Your task to perform on an android device: Show the shopping cart on newegg.com. Add "asus zenbook" to the cart on newegg.com Image 0: 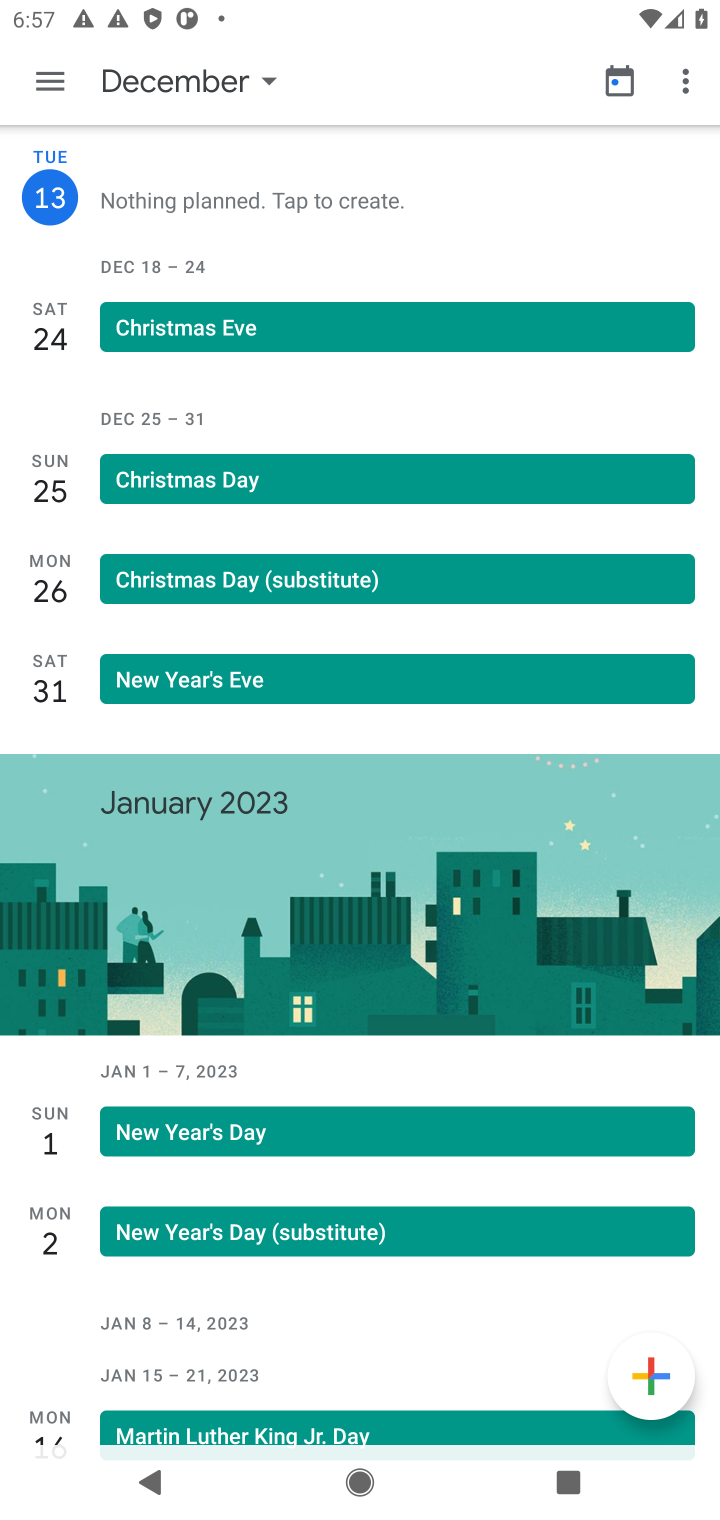
Step 0: press home button
Your task to perform on an android device: Show the shopping cart on newegg.com. Add "asus zenbook" to the cart on newegg.com Image 1: 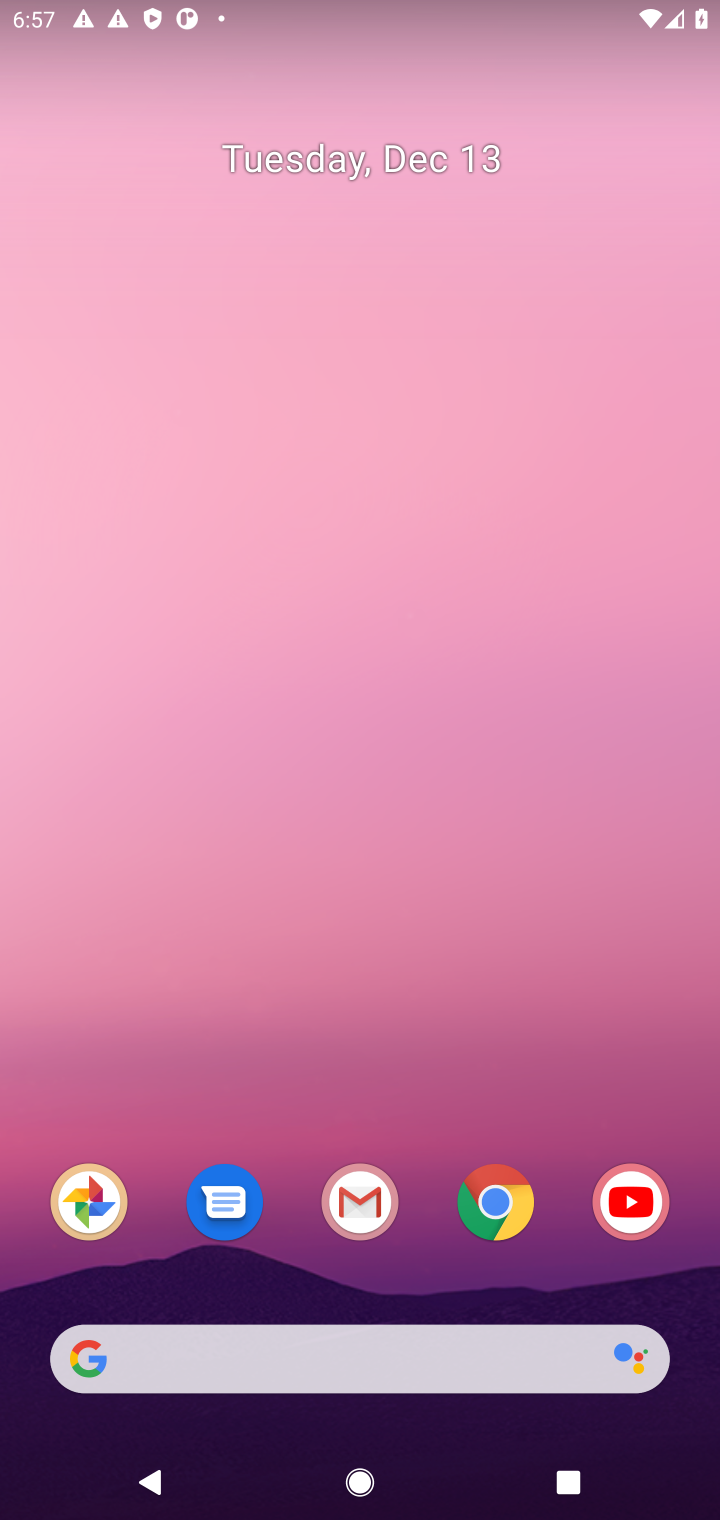
Step 1: click (497, 1220)
Your task to perform on an android device: Show the shopping cart on newegg.com. Add "asus zenbook" to the cart on newegg.com Image 2: 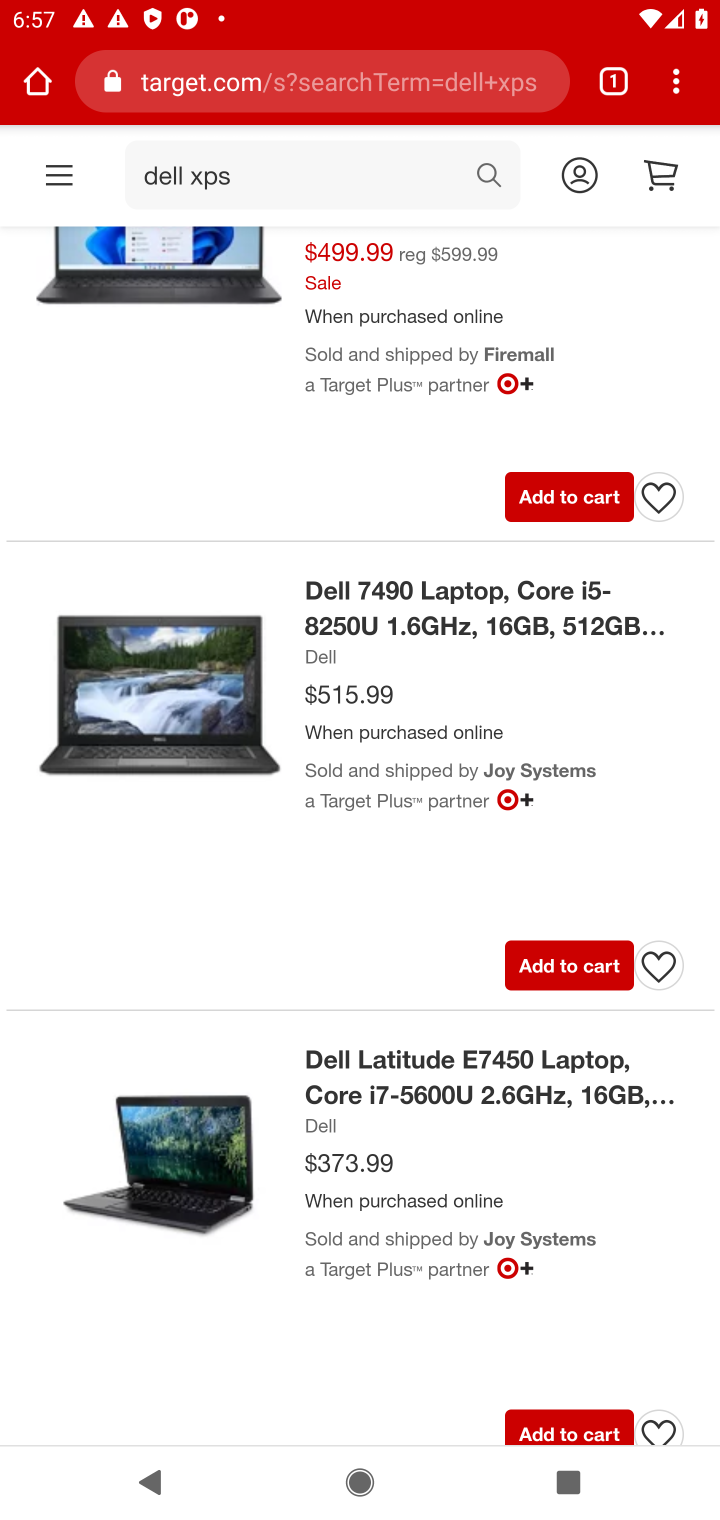
Step 2: click (239, 88)
Your task to perform on an android device: Show the shopping cart on newegg.com. Add "asus zenbook" to the cart on newegg.com Image 3: 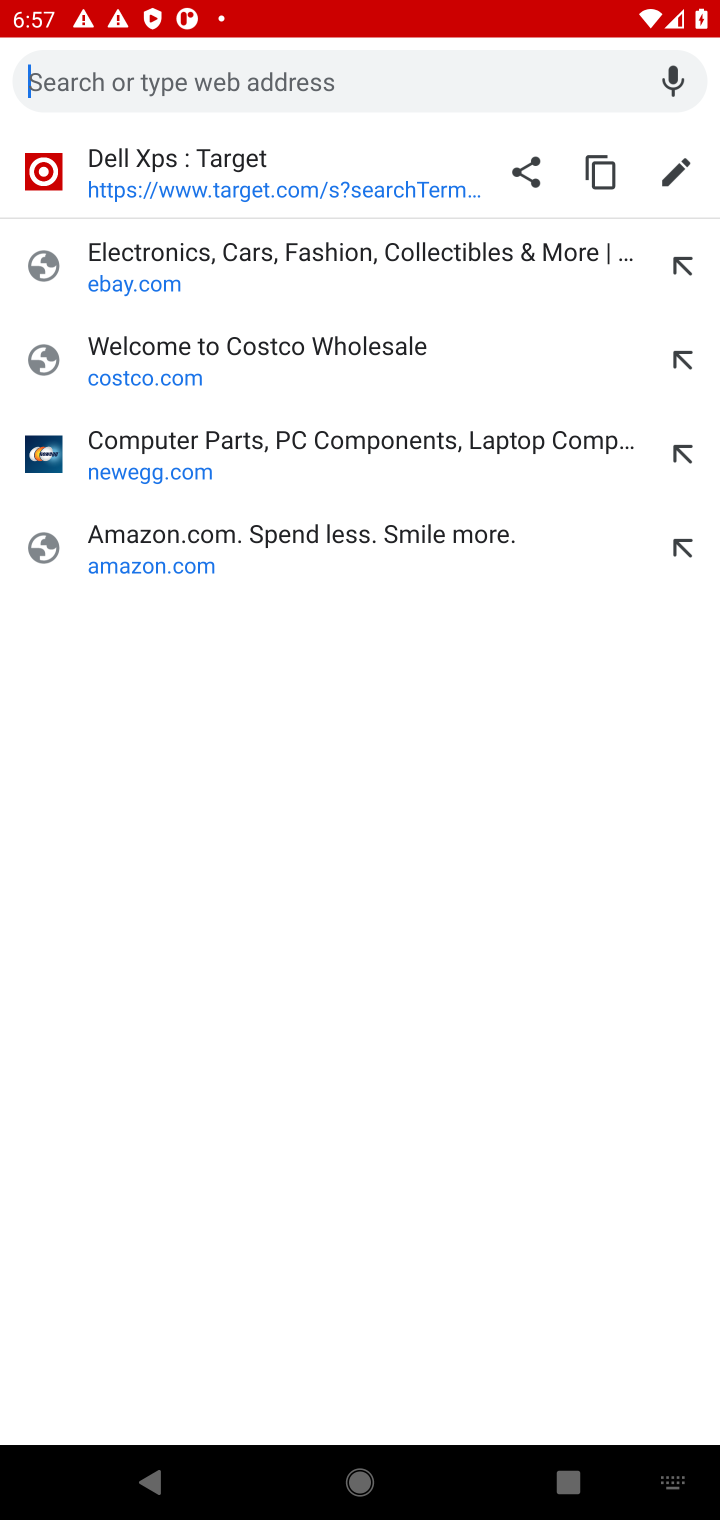
Step 3: click (173, 470)
Your task to perform on an android device: Show the shopping cart on newegg.com. Add "asus zenbook" to the cart on newegg.com Image 4: 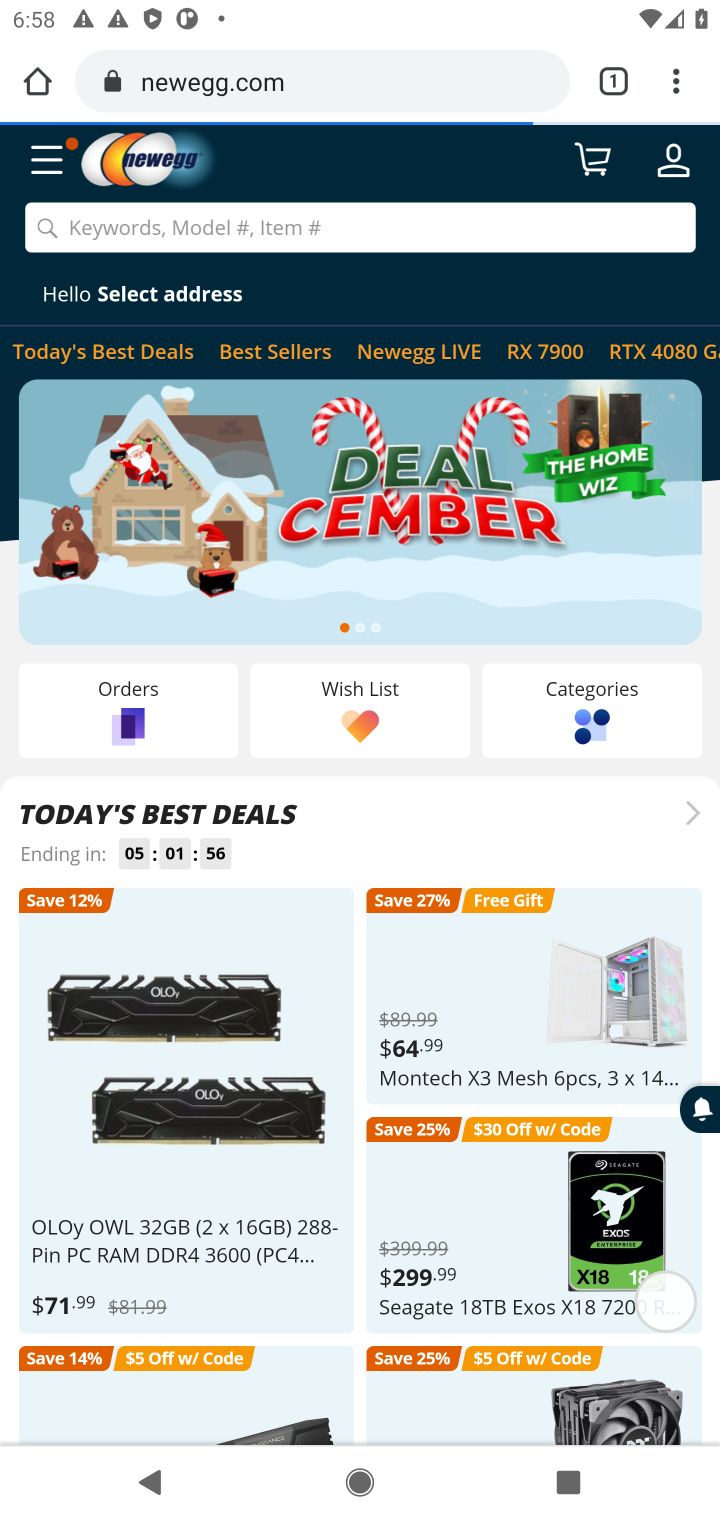
Step 4: click (598, 166)
Your task to perform on an android device: Show the shopping cart on newegg.com. Add "asus zenbook" to the cart on newegg.com Image 5: 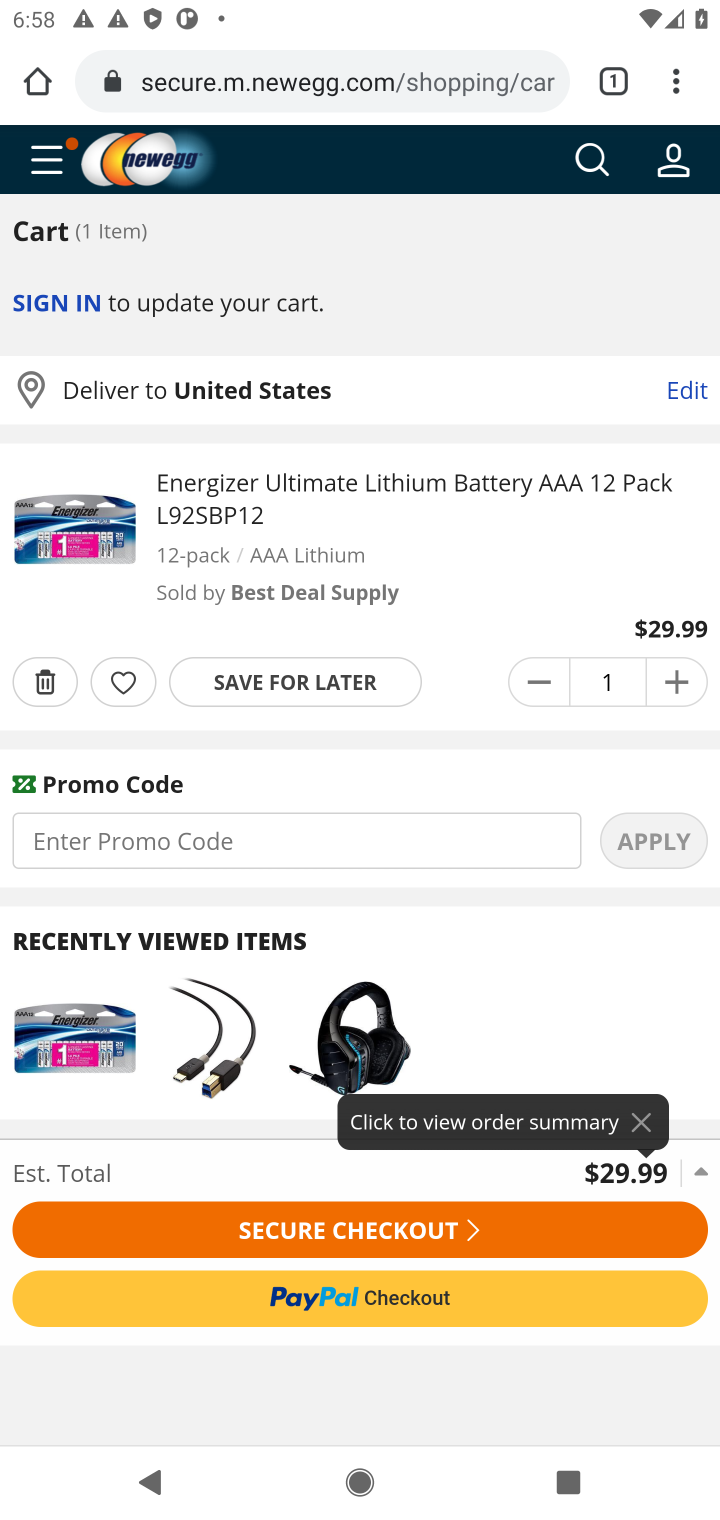
Step 5: click (588, 173)
Your task to perform on an android device: Show the shopping cart on newegg.com. Add "asus zenbook" to the cart on newegg.com Image 6: 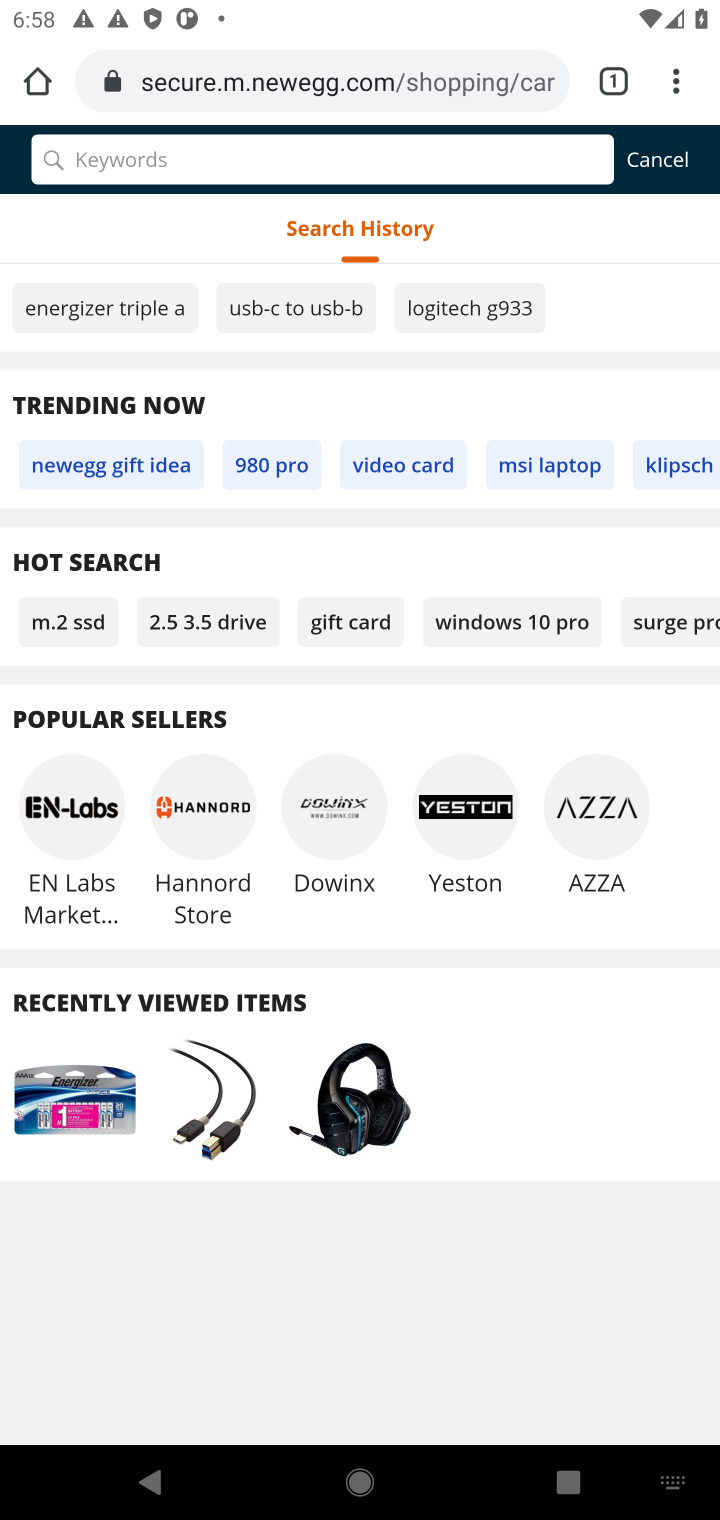
Step 6: type "asus zenbook"
Your task to perform on an android device: Show the shopping cart on newegg.com. Add "asus zenbook" to the cart on newegg.com Image 7: 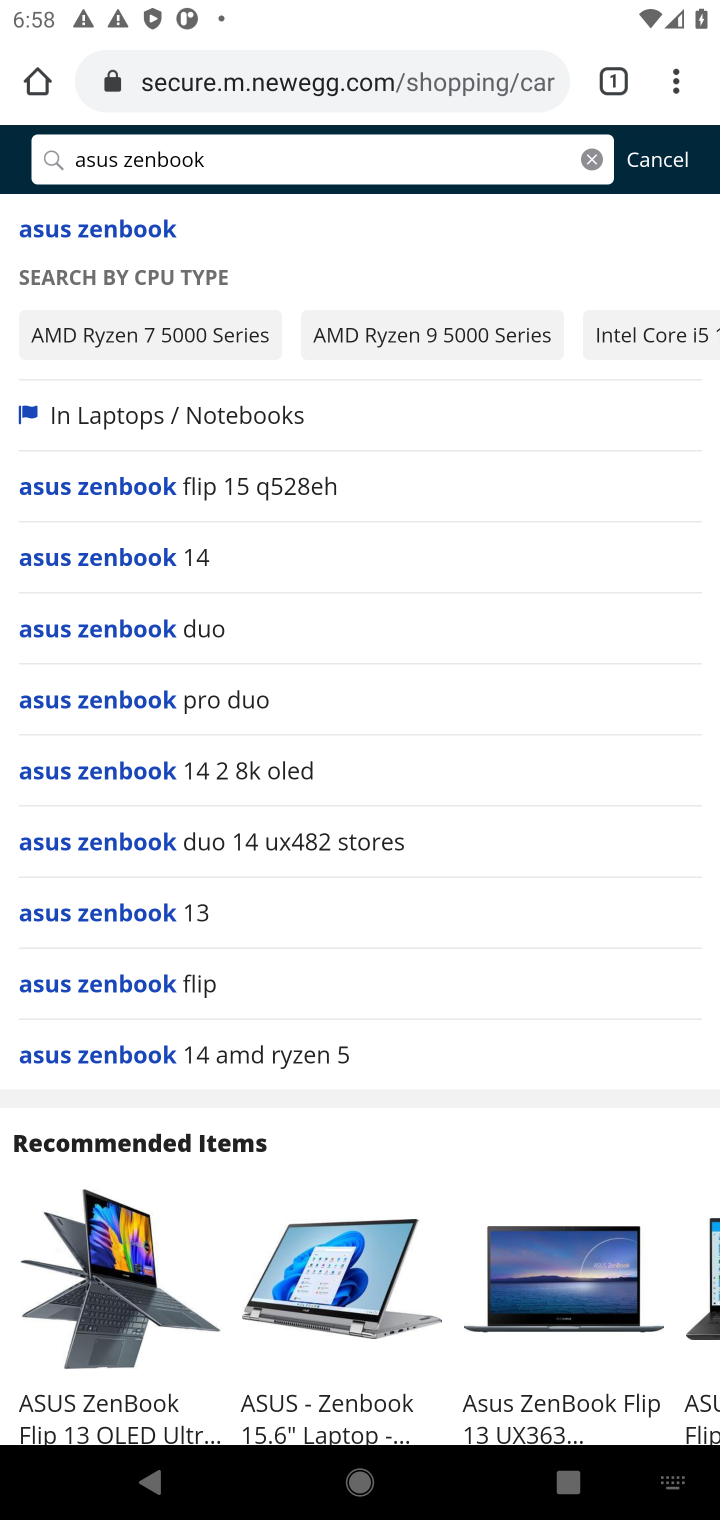
Step 7: click (145, 231)
Your task to perform on an android device: Show the shopping cart on newegg.com. Add "asus zenbook" to the cart on newegg.com Image 8: 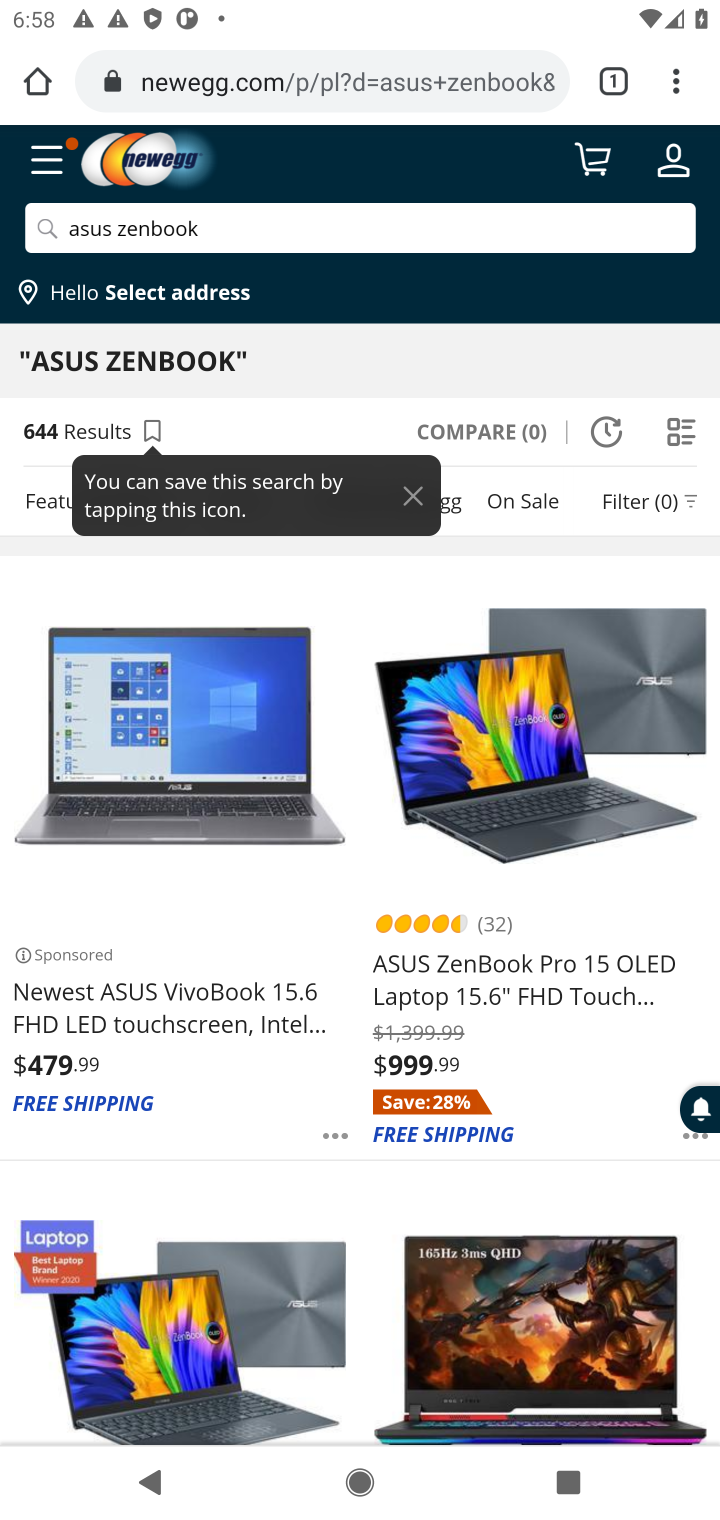
Step 8: click (510, 987)
Your task to perform on an android device: Show the shopping cart on newegg.com. Add "asus zenbook" to the cart on newegg.com Image 9: 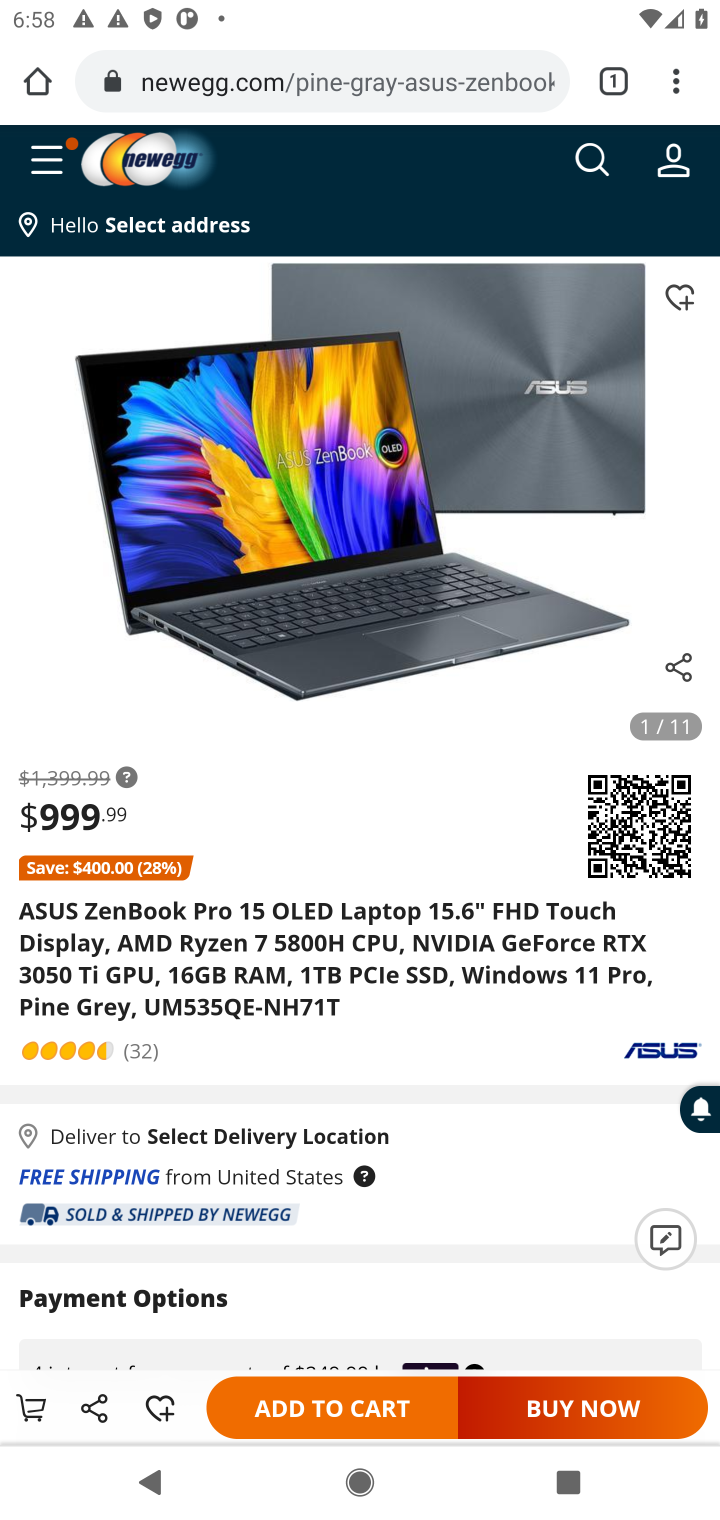
Step 9: click (319, 1422)
Your task to perform on an android device: Show the shopping cart on newegg.com. Add "asus zenbook" to the cart on newegg.com Image 10: 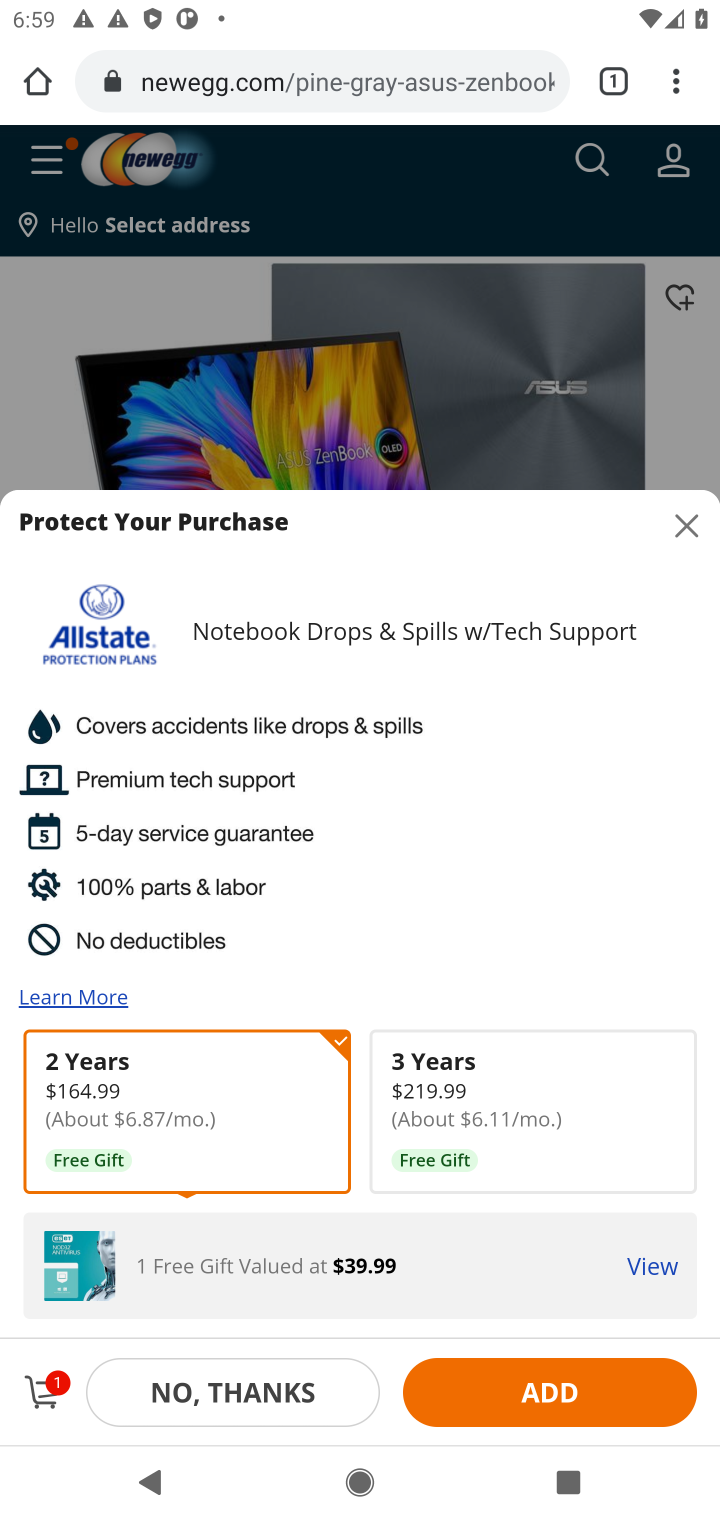
Step 10: task complete